Your task to perform on an android device: see sites visited before in the chrome app Image 0: 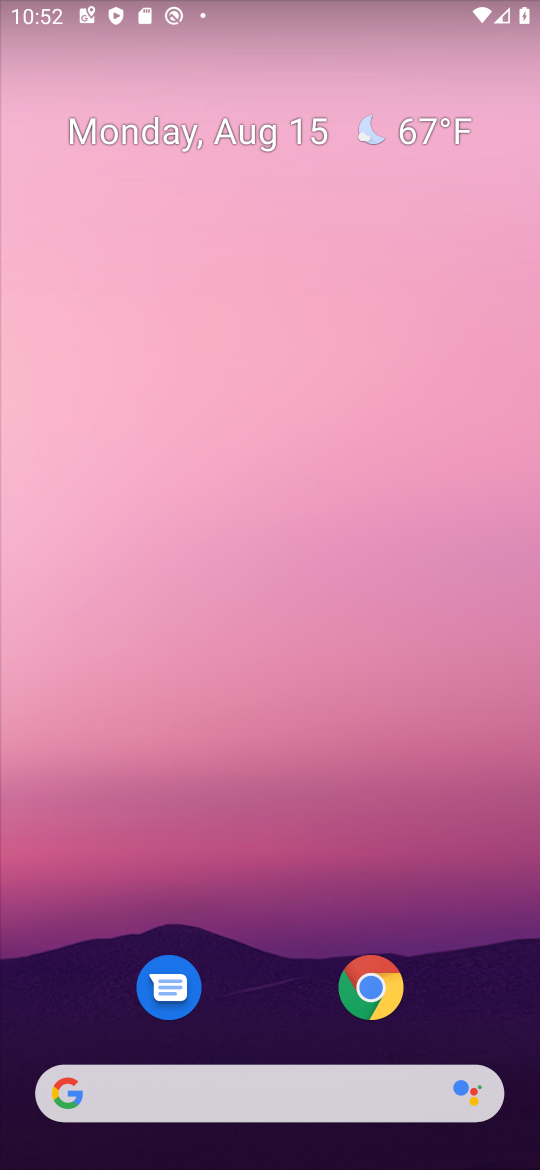
Step 0: click (386, 981)
Your task to perform on an android device: see sites visited before in the chrome app Image 1: 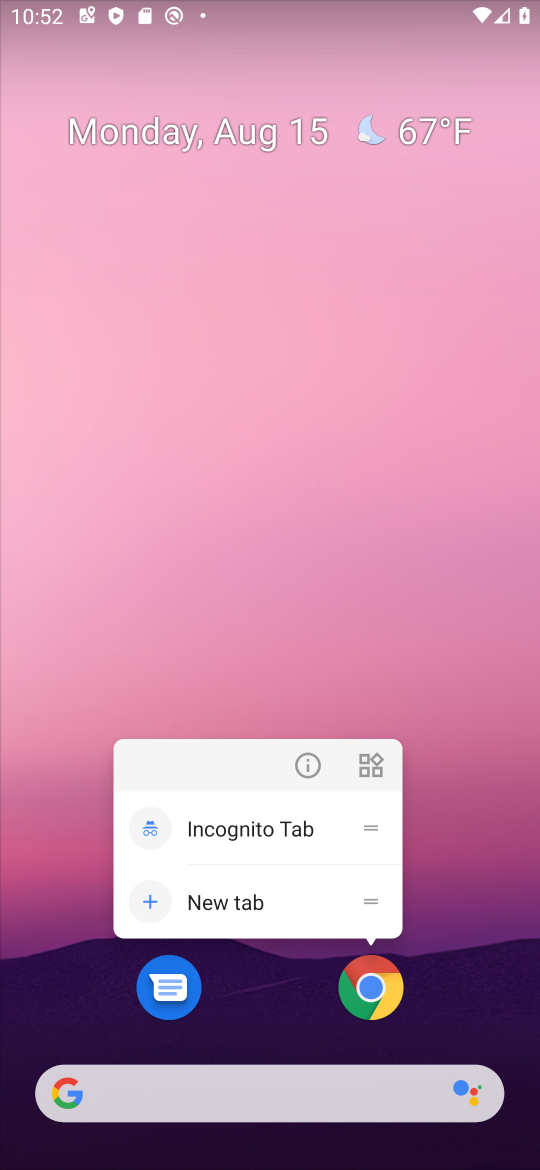
Step 1: click (366, 1012)
Your task to perform on an android device: see sites visited before in the chrome app Image 2: 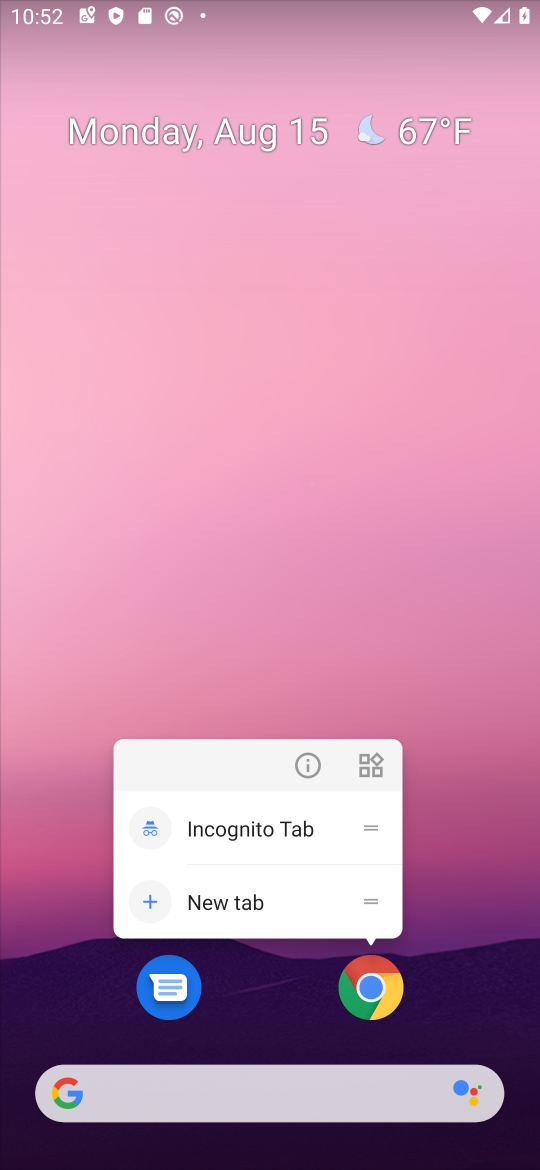
Step 2: click (366, 1012)
Your task to perform on an android device: see sites visited before in the chrome app Image 3: 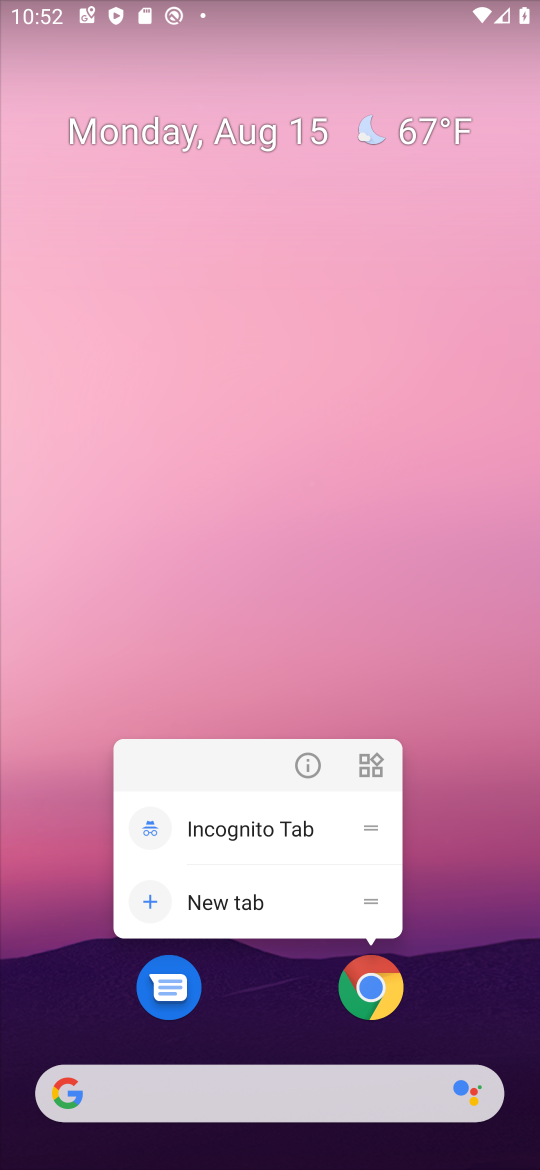
Step 3: click (373, 994)
Your task to perform on an android device: see sites visited before in the chrome app Image 4: 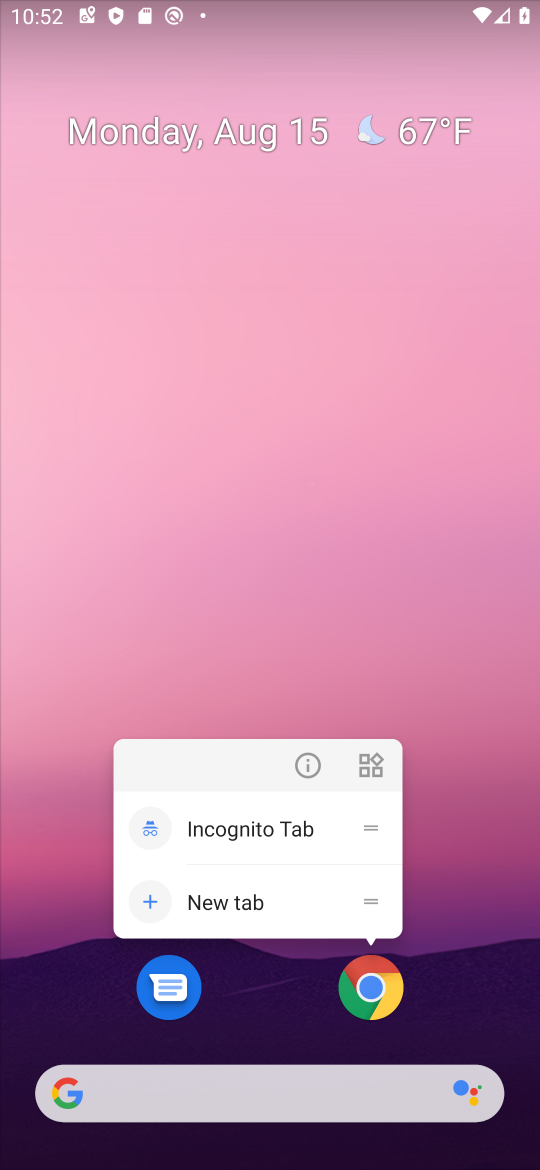
Step 4: click (380, 986)
Your task to perform on an android device: see sites visited before in the chrome app Image 5: 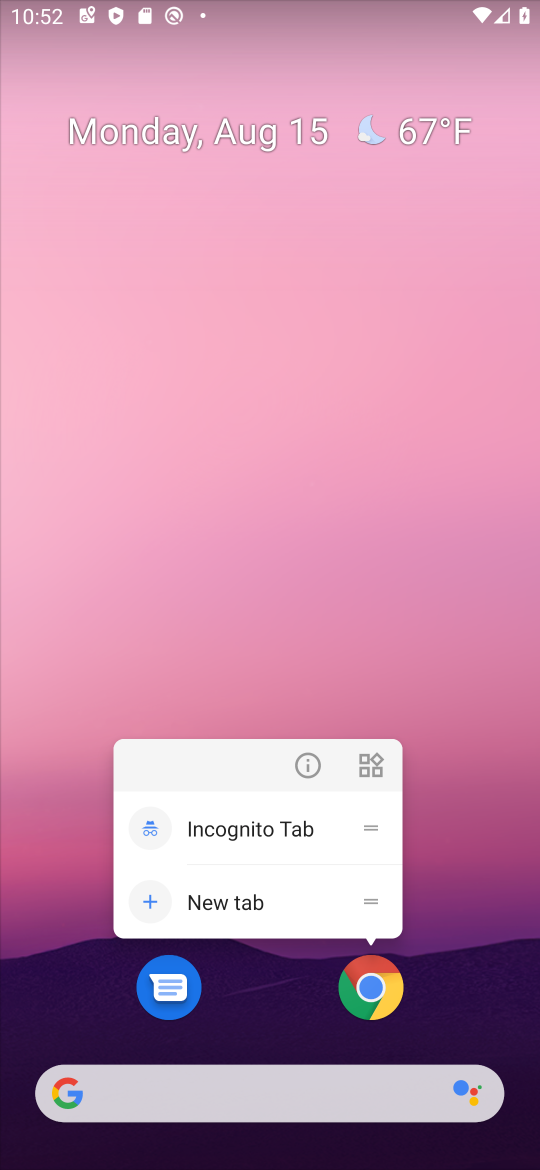
Step 5: click (380, 986)
Your task to perform on an android device: see sites visited before in the chrome app Image 6: 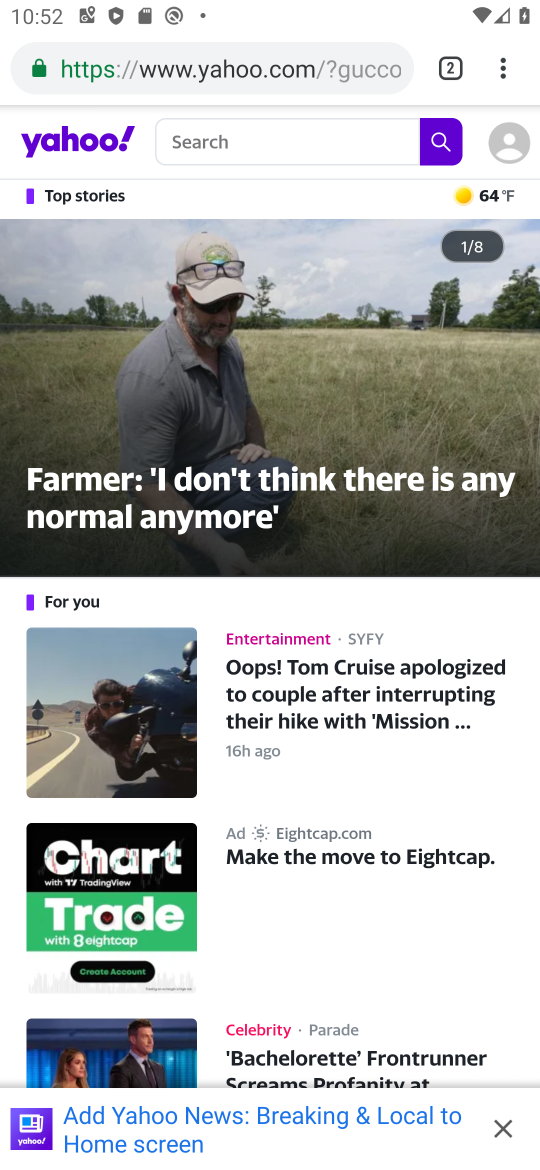
Step 6: click (500, 79)
Your task to perform on an android device: see sites visited before in the chrome app Image 7: 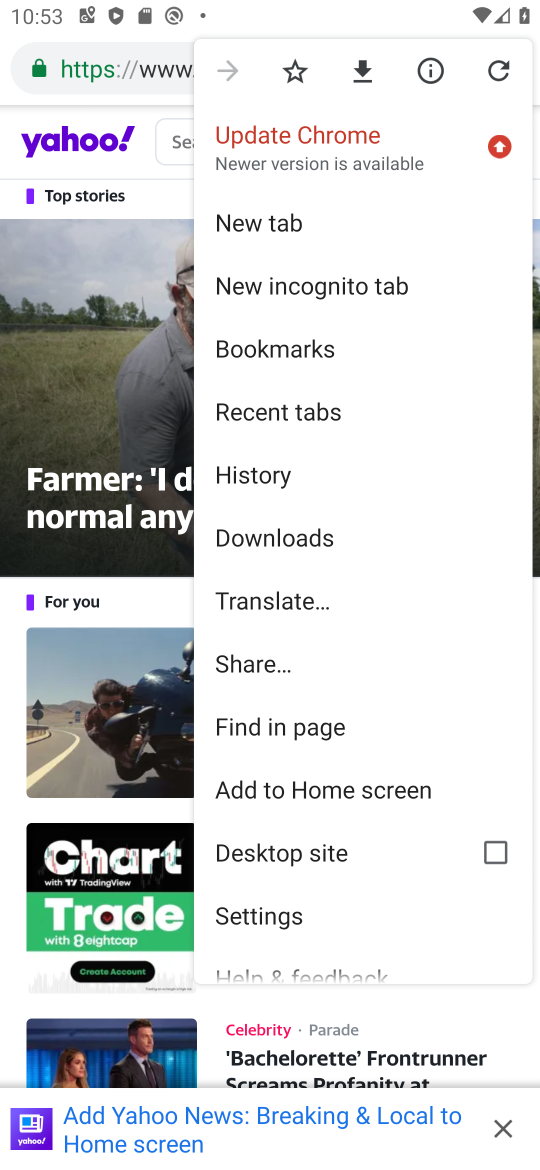
Step 7: click (295, 473)
Your task to perform on an android device: see sites visited before in the chrome app Image 8: 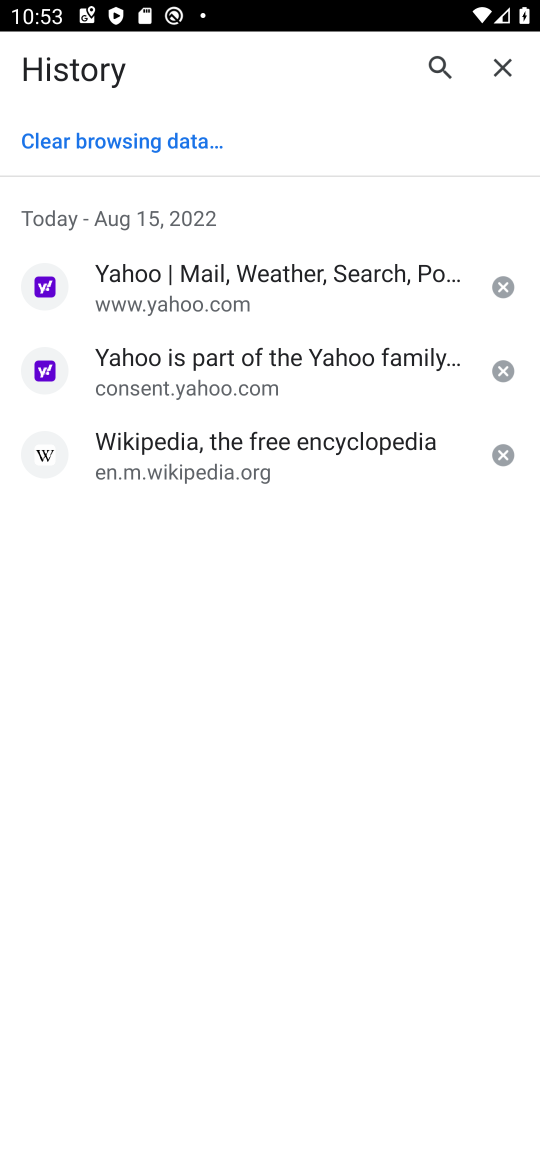
Step 8: task complete